Your task to perform on an android device: What's the weather going to be this weekend? Image 0: 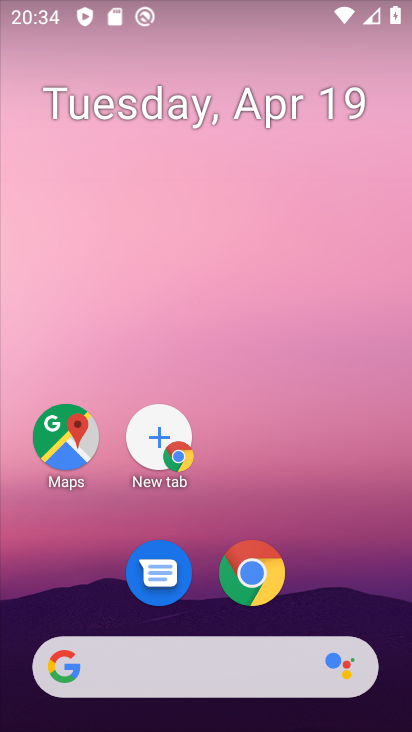
Step 0: drag from (367, 415) to (359, 291)
Your task to perform on an android device: What's the weather going to be this weekend? Image 1: 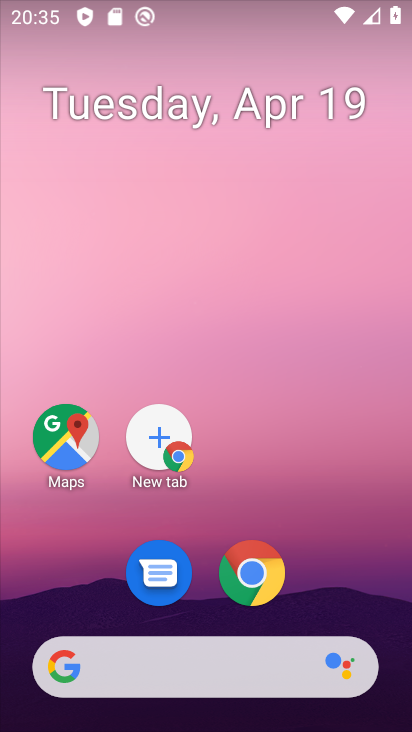
Step 1: drag from (388, 632) to (356, 221)
Your task to perform on an android device: What's the weather going to be this weekend? Image 2: 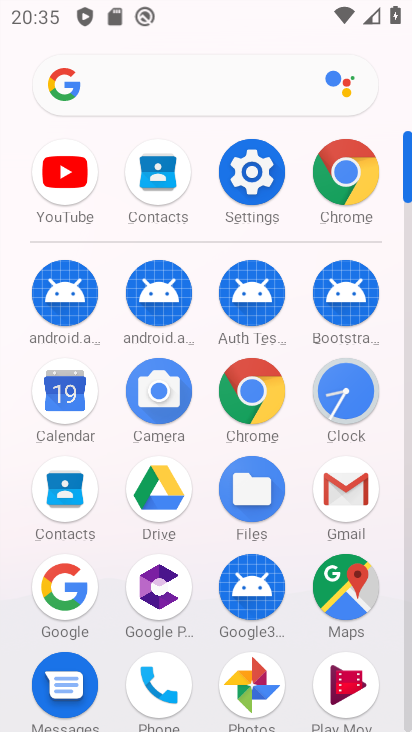
Step 2: press home button
Your task to perform on an android device: What's the weather going to be this weekend? Image 3: 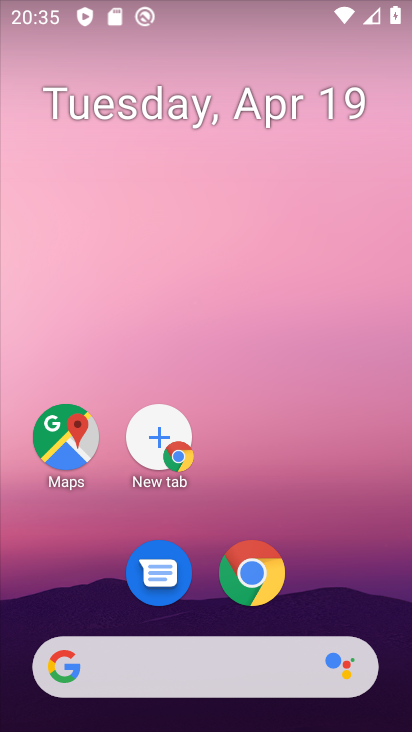
Step 3: drag from (269, 308) to (393, 307)
Your task to perform on an android device: What's the weather going to be this weekend? Image 4: 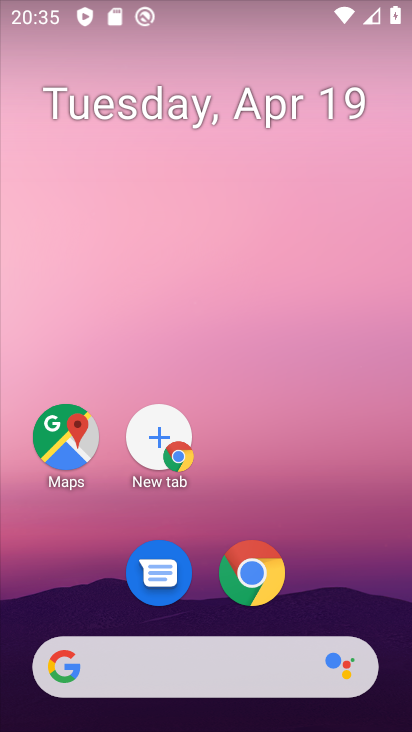
Step 4: drag from (47, 272) to (399, 250)
Your task to perform on an android device: What's the weather going to be this weekend? Image 5: 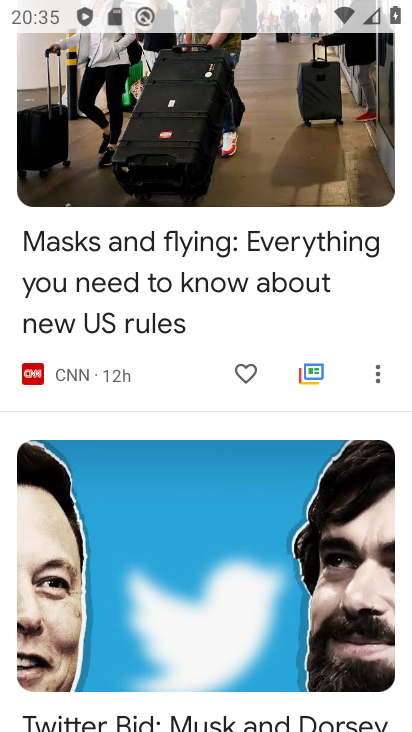
Step 5: drag from (250, 124) to (261, 713)
Your task to perform on an android device: What's the weather going to be this weekend? Image 6: 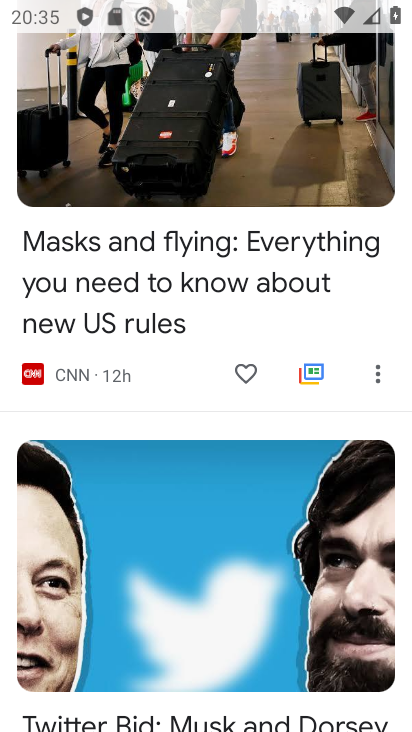
Step 6: drag from (220, 66) to (234, 502)
Your task to perform on an android device: What's the weather going to be this weekend? Image 7: 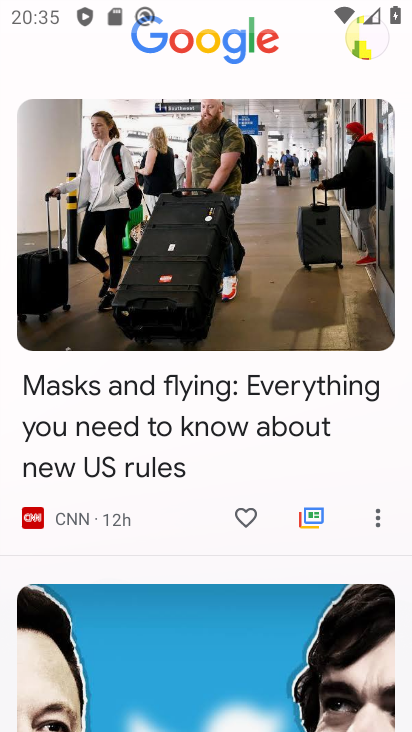
Step 7: drag from (222, 132) to (236, 627)
Your task to perform on an android device: What's the weather going to be this weekend? Image 8: 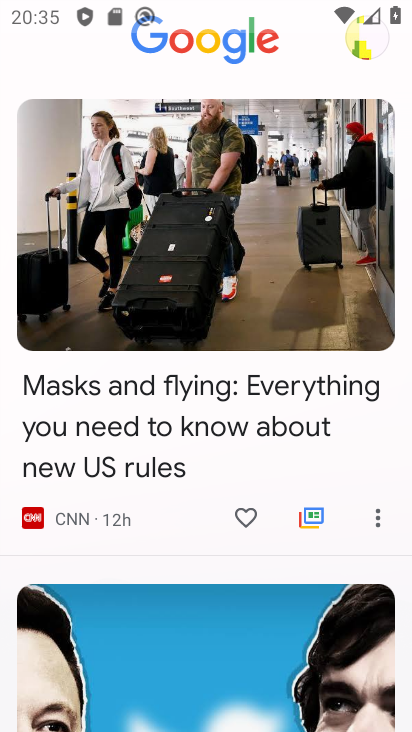
Step 8: click (194, 417)
Your task to perform on an android device: What's the weather going to be this weekend? Image 9: 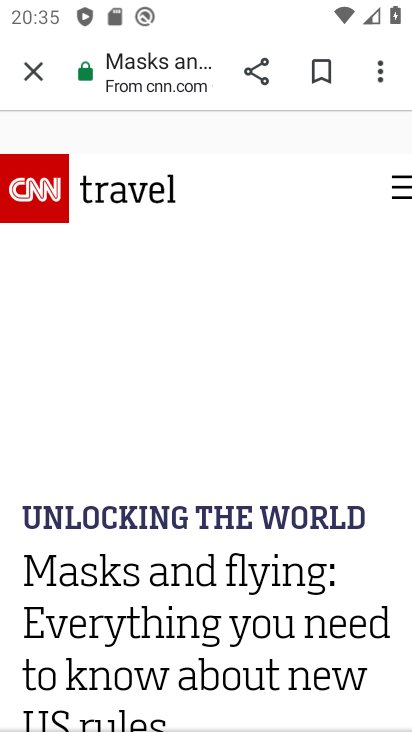
Step 9: task complete